Your task to perform on an android device: Show me popular videos on Youtube Image 0: 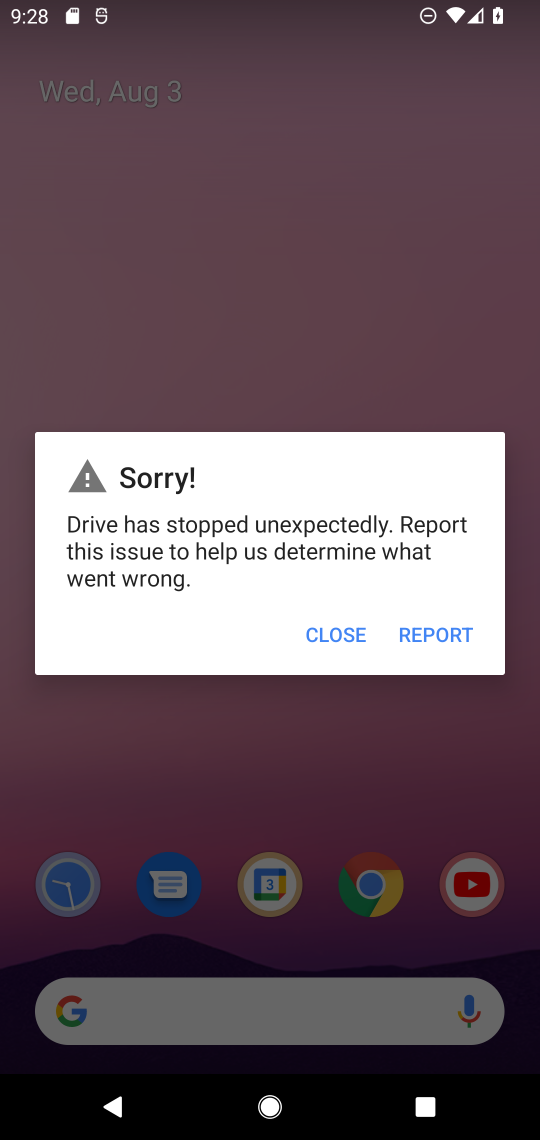
Step 0: press home button
Your task to perform on an android device: Show me popular videos on Youtube Image 1: 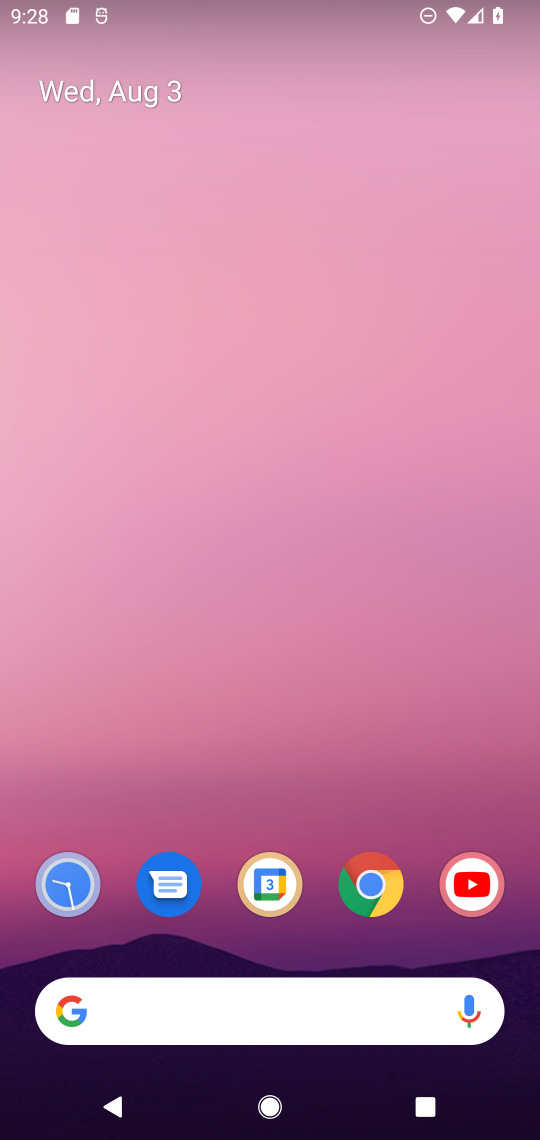
Step 1: click (463, 891)
Your task to perform on an android device: Show me popular videos on Youtube Image 2: 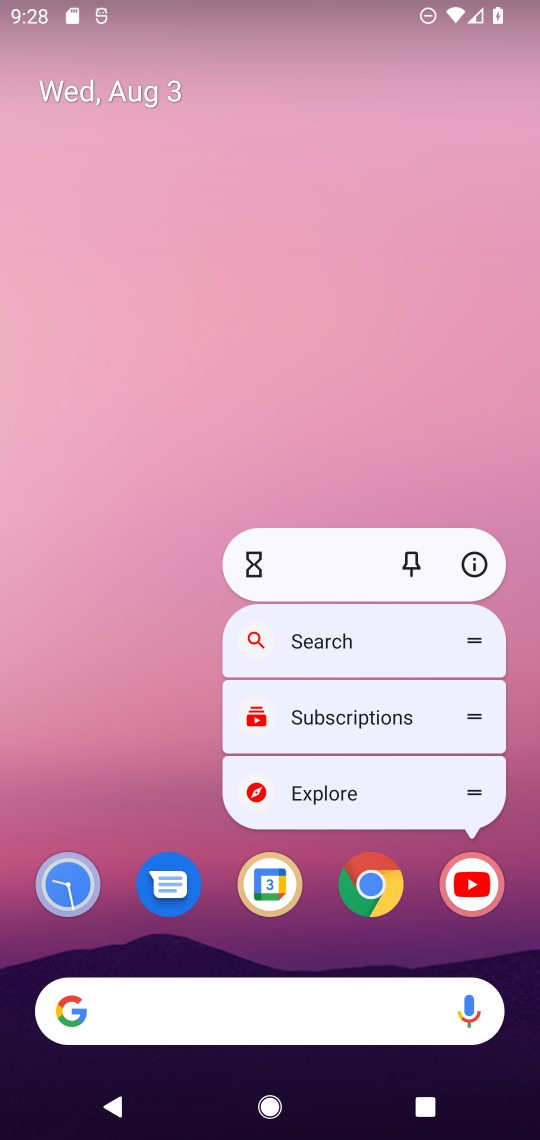
Step 2: click (457, 869)
Your task to perform on an android device: Show me popular videos on Youtube Image 3: 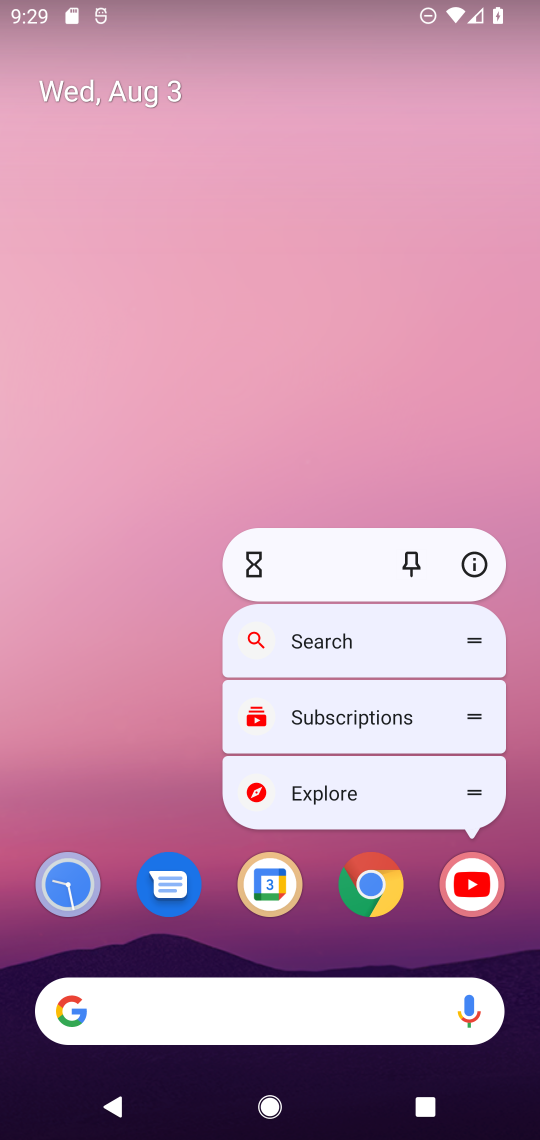
Step 3: task complete